Your task to perform on an android device: When is my next meeting? Image 0: 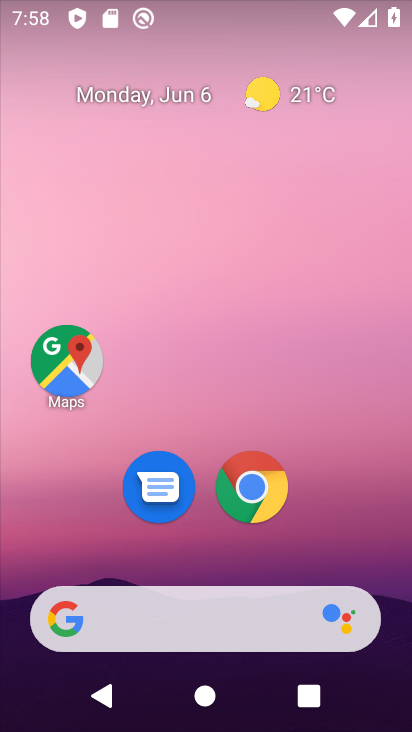
Step 0: drag from (318, 504) to (305, 10)
Your task to perform on an android device: When is my next meeting? Image 1: 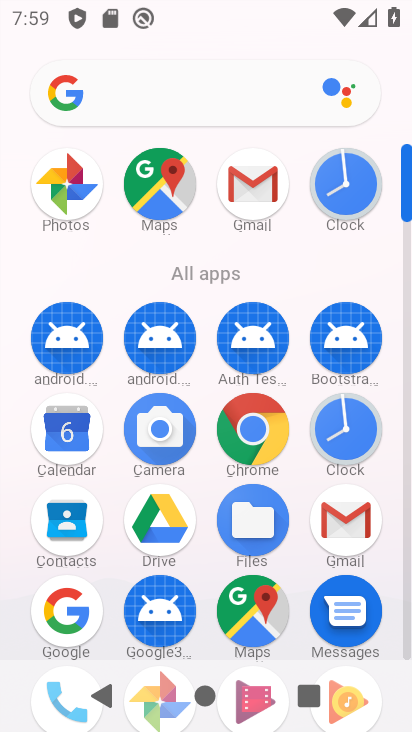
Step 1: click (62, 437)
Your task to perform on an android device: When is my next meeting? Image 2: 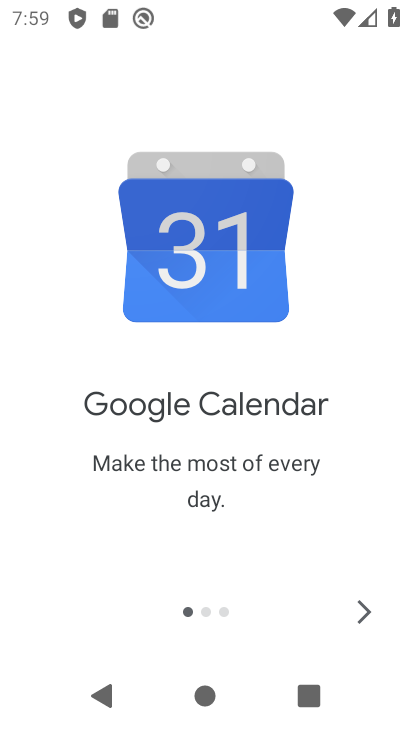
Step 2: click (361, 605)
Your task to perform on an android device: When is my next meeting? Image 3: 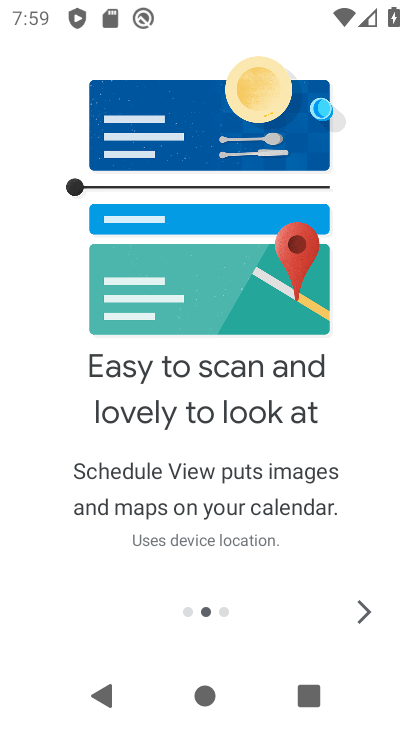
Step 3: click (361, 605)
Your task to perform on an android device: When is my next meeting? Image 4: 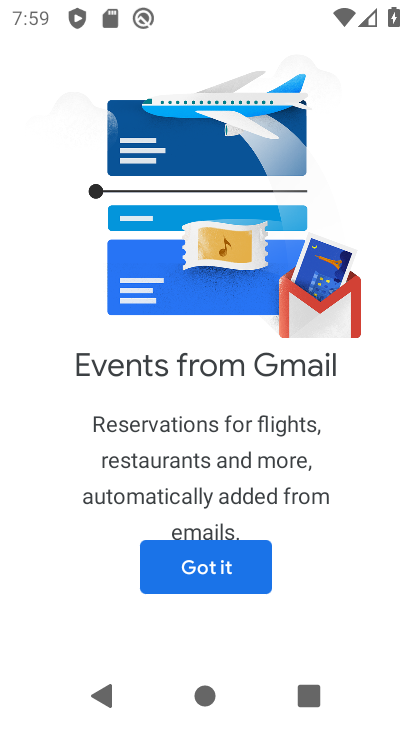
Step 4: click (240, 565)
Your task to perform on an android device: When is my next meeting? Image 5: 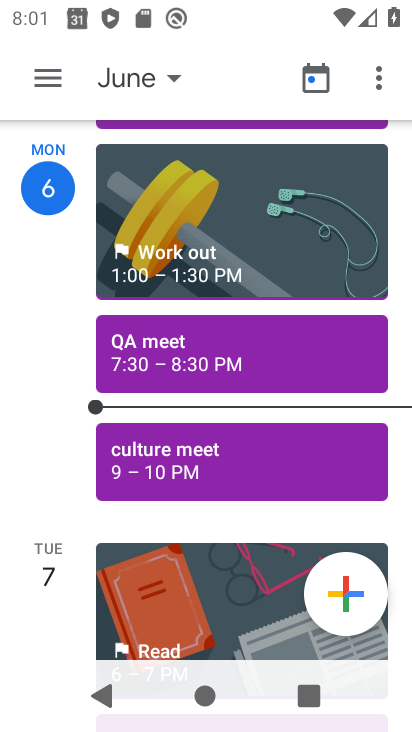
Step 5: task complete